Your task to perform on an android device: manage bookmarks in the chrome app Image 0: 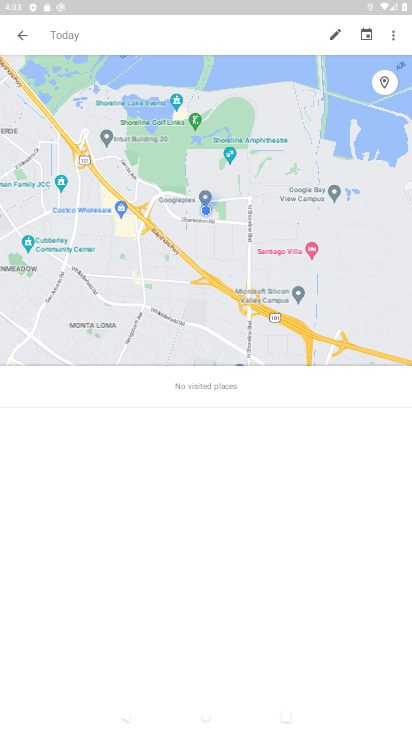
Step 0: press home button
Your task to perform on an android device: manage bookmarks in the chrome app Image 1: 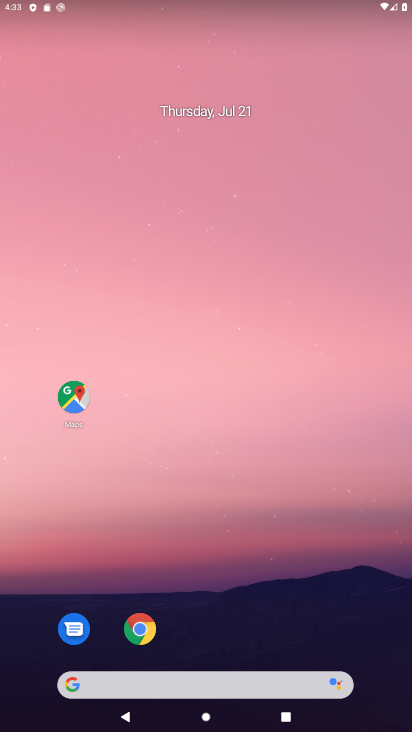
Step 1: click (150, 623)
Your task to perform on an android device: manage bookmarks in the chrome app Image 2: 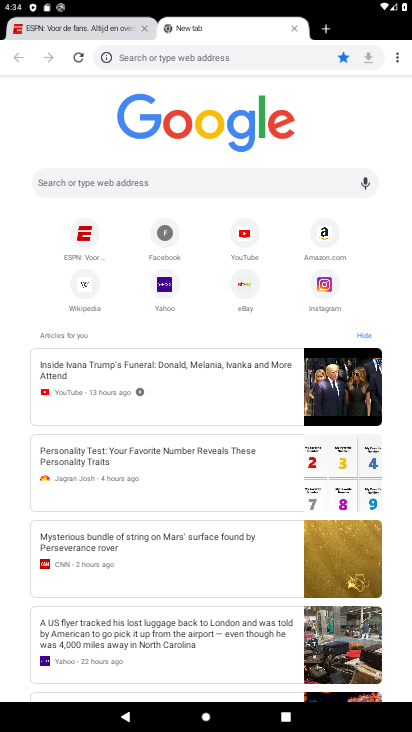
Step 2: click (399, 52)
Your task to perform on an android device: manage bookmarks in the chrome app Image 3: 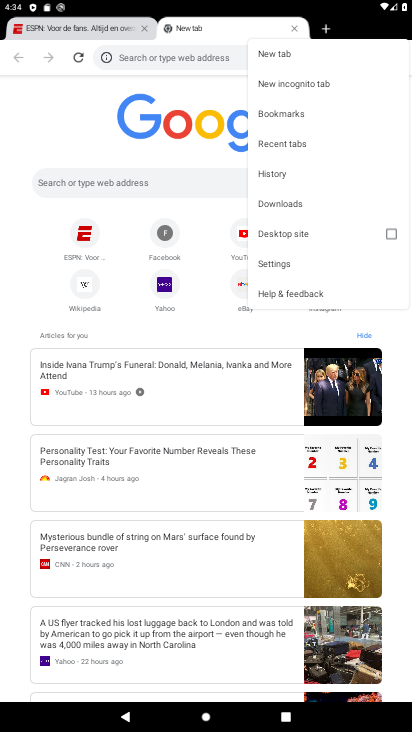
Step 3: click (299, 113)
Your task to perform on an android device: manage bookmarks in the chrome app Image 4: 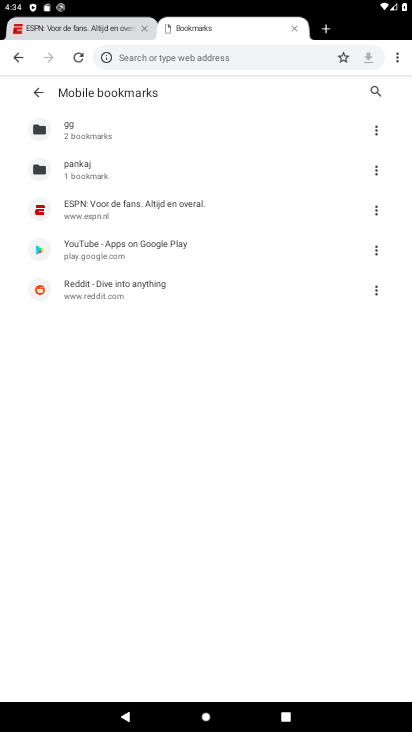
Step 4: click (372, 290)
Your task to perform on an android device: manage bookmarks in the chrome app Image 5: 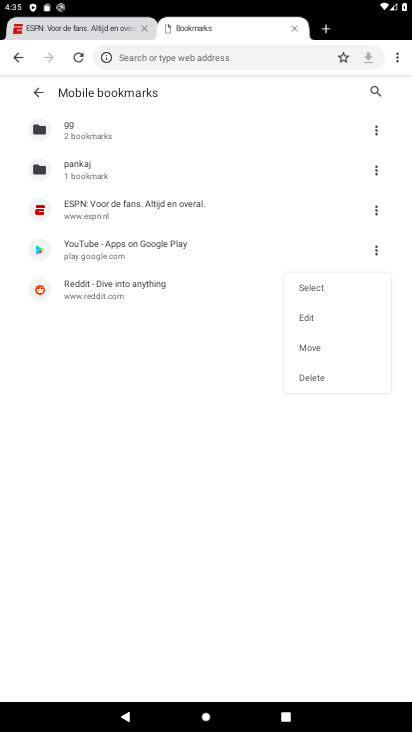
Step 5: click (326, 374)
Your task to perform on an android device: manage bookmarks in the chrome app Image 6: 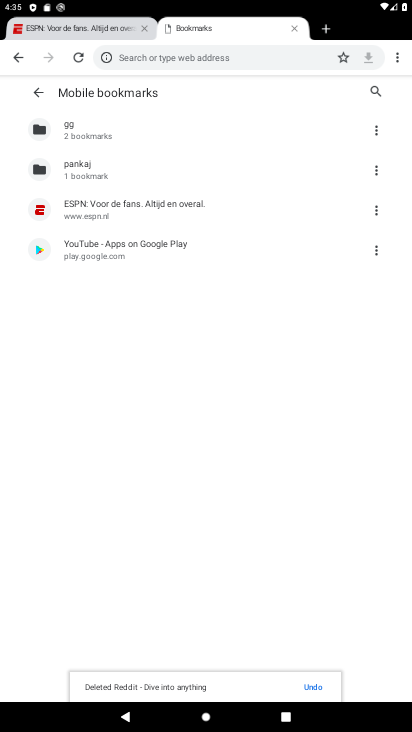
Step 6: task complete